Your task to perform on an android device: turn on the 24-hour format for clock Image 0: 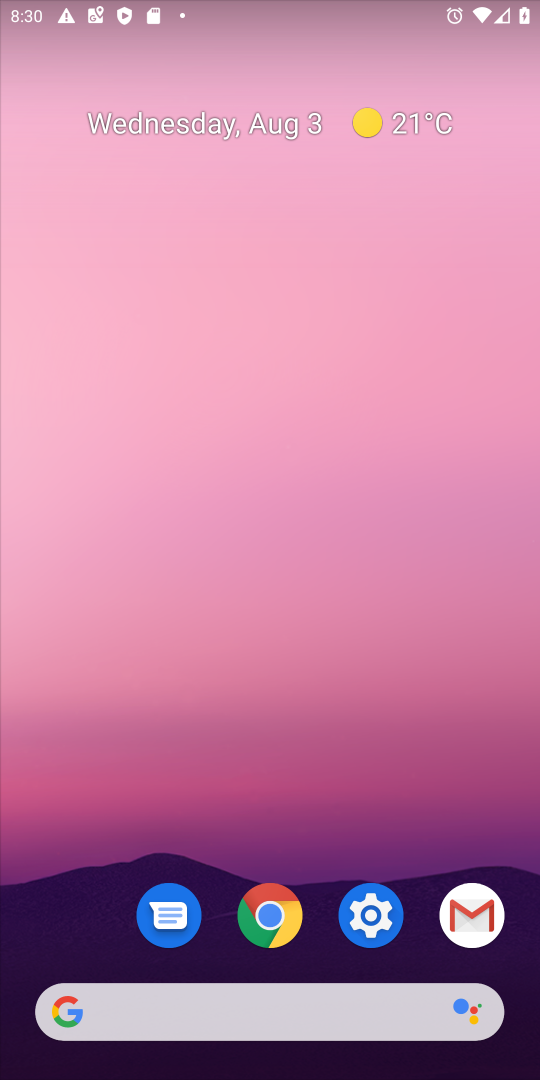
Step 0: drag from (321, 963) to (234, 252)
Your task to perform on an android device: turn on the 24-hour format for clock Image 1: 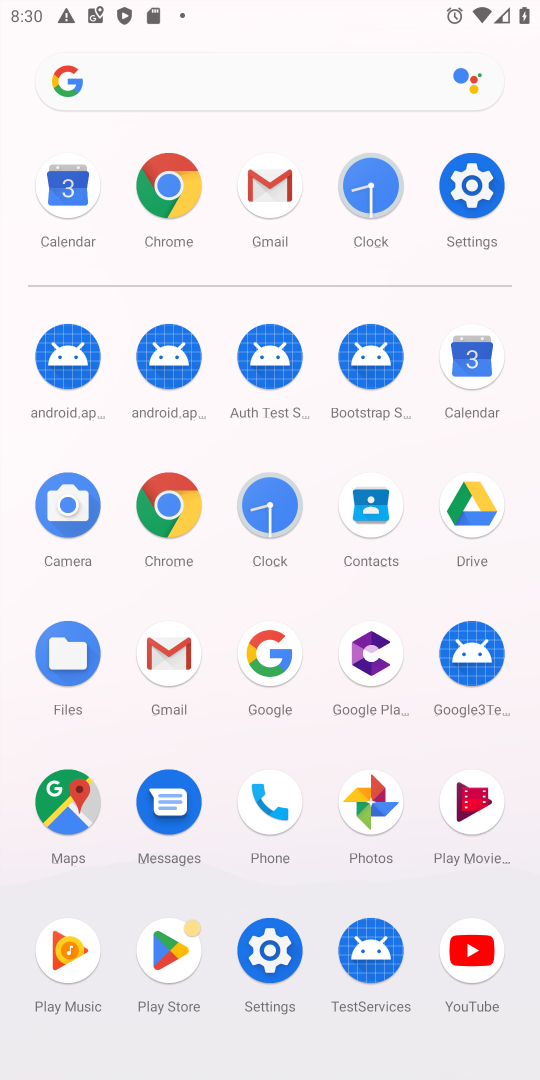
Step 1: click (255, 511)
Your task to perform on an android device: turn on the 24-hour format for clock Image 2: 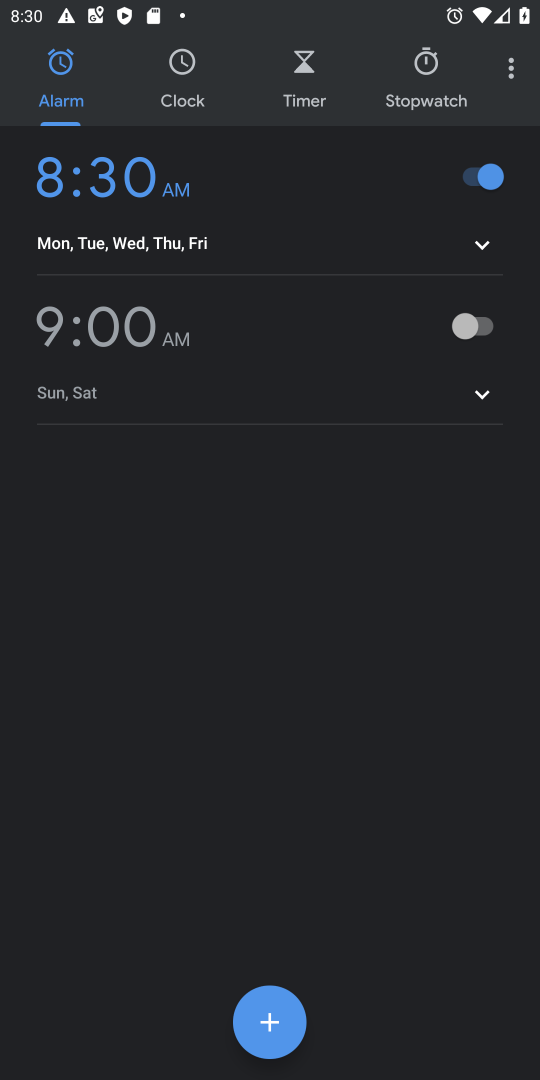
Step 2: click (501, 86)
Your task to perform on an android device: turn on the 24-hour format for clock Image 3: 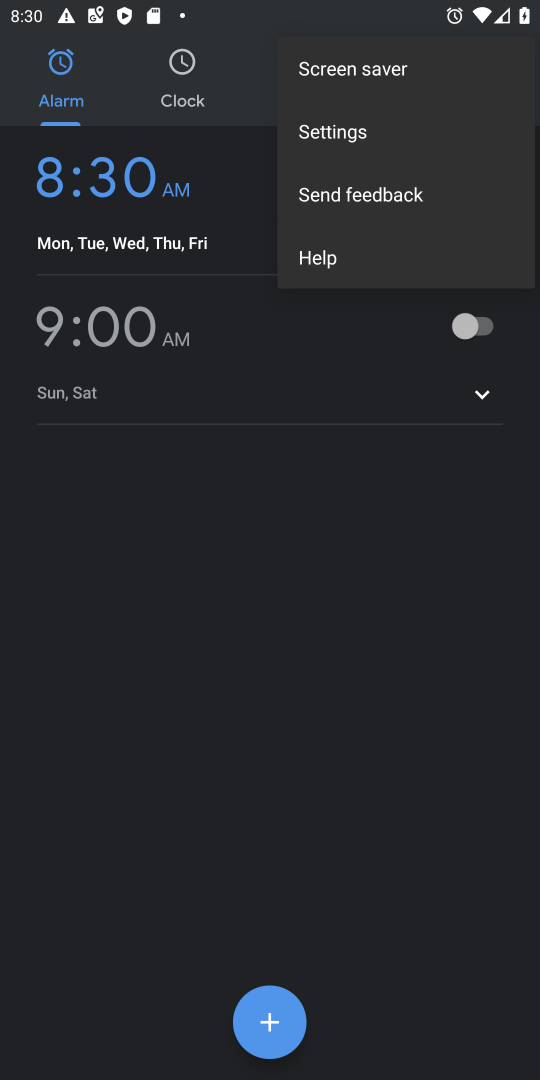
Step 3: click (320, 147)
Your task to perform on an android device: turn on the 24-hour format for clock Image 4: 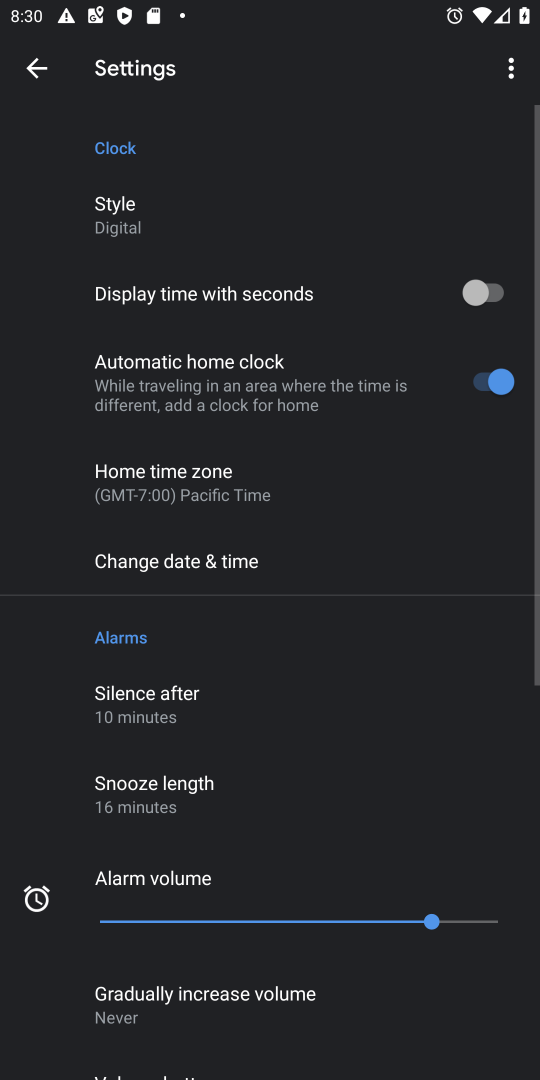
Step 4: click (195, 553)
Your task to perform on an android device: turn on the 24-hour format for clock Image 5: 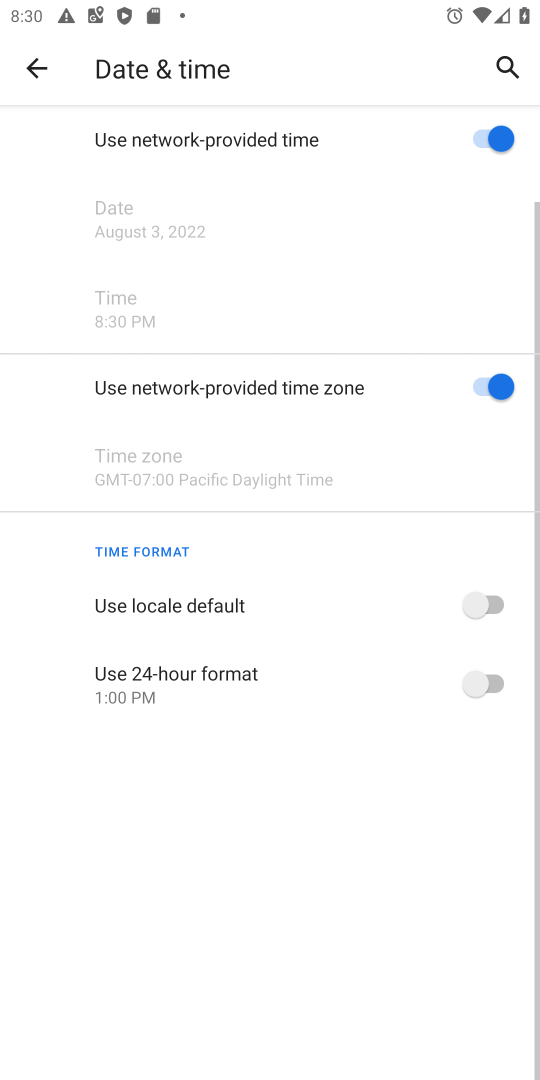
Step 5: click (490, 664)
Your task to perform on an android device: turn on the 24-hour format for clock Image 6: 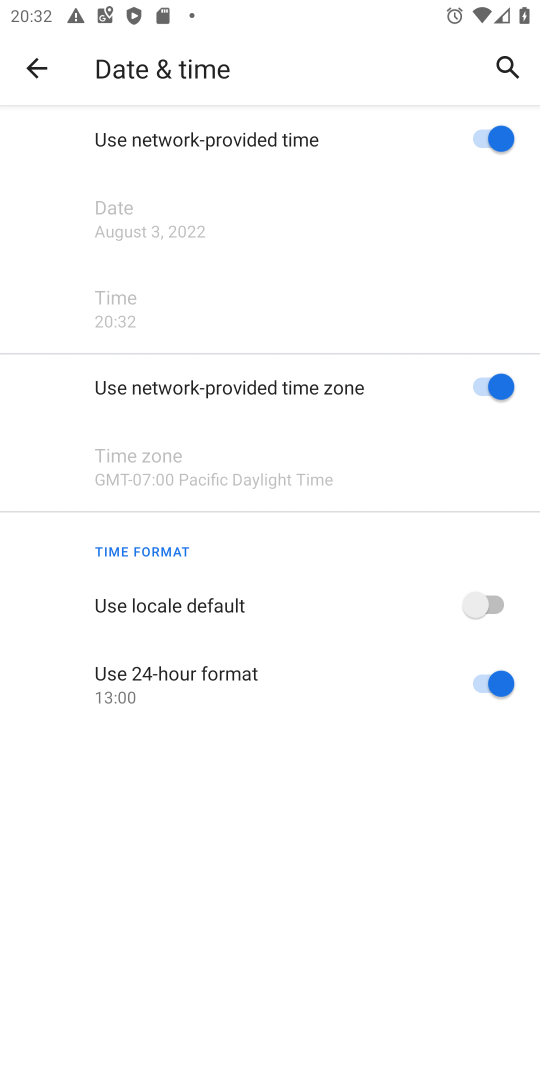
Step 6: task complete